Your task to perform on an android device: Do I have any events tomorrow? Image 0: 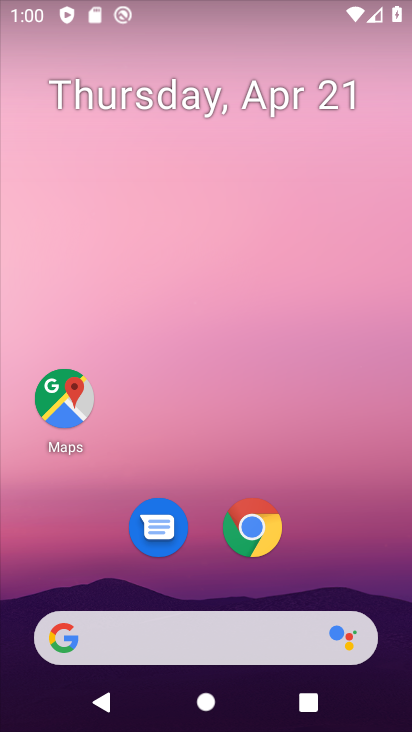
Step 0: drag from (336, 561) to (347, 168)
Your task to perform on an android device: Do I have any events tomorrow? Image 1: 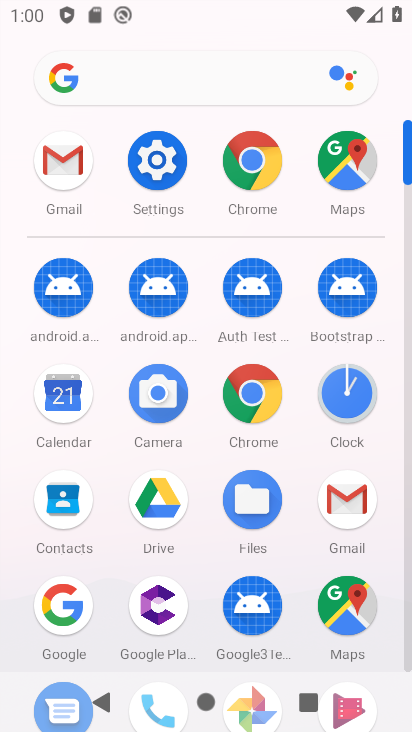
Step 1: click (70, 406)
Your task to perform on an android device: Do I have any events tomorrow? Image 2: 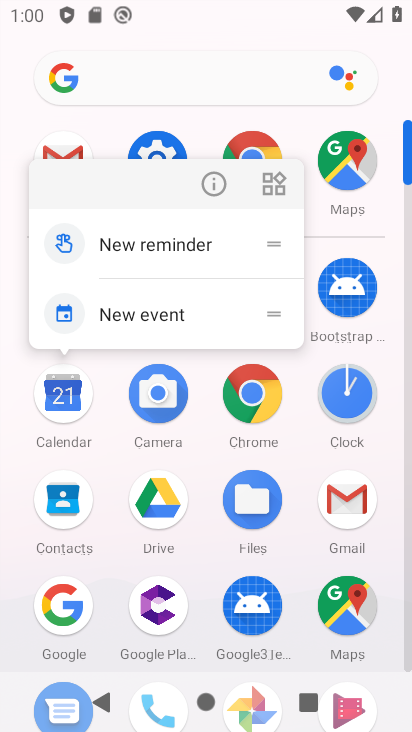
Step 2: click (69, 407)
Your task to perform on an android device: Do I have any events tomorrow? Image 3: 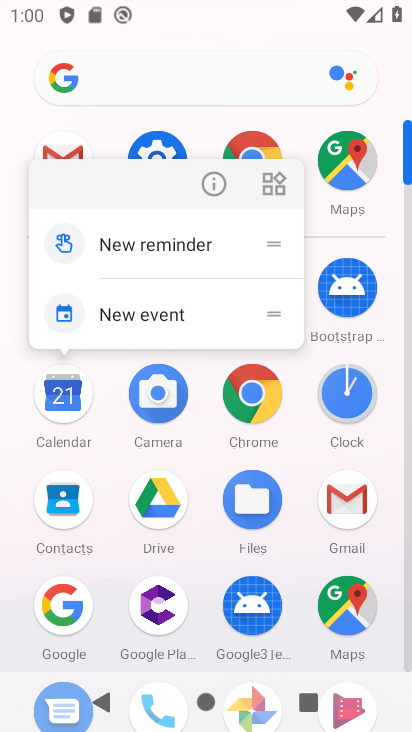
Step 3: click (69, 407)
Your task to perform on an android device: Do I have any events tomorrow? Image 4: 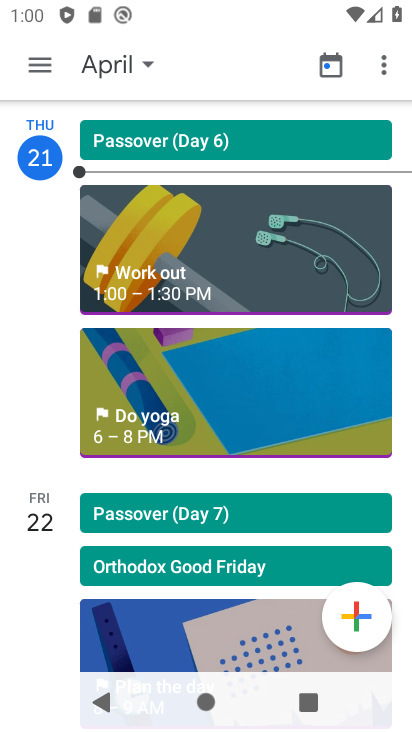
Step 4: drag from (288, 614) to (299, 130)
Your task to perform on an android device: Do I have any events tomorrow? Image 5: 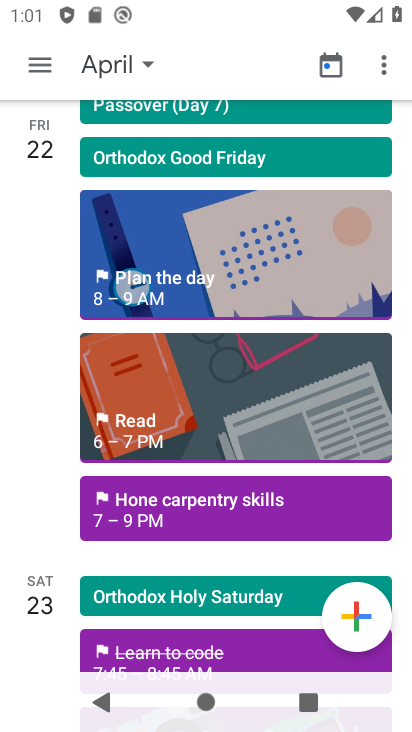
Step 5: click (225, 246)
Your task to perform on an android device: Do I have any events tomorrow? Image 6: 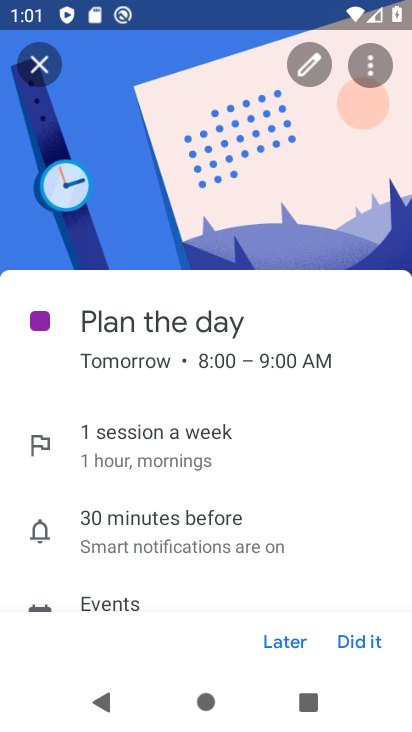
Step 6: task complete